Your task to perform on an android device: Search for Mexican restaurants on Maps Image 0: 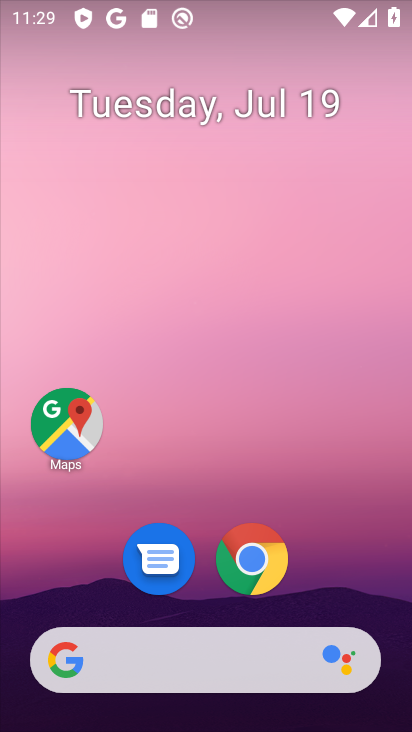
Step 0: click (12, 416)
Your task to perform on an android device: Search for Mexican restaurants on Maps Image 1: 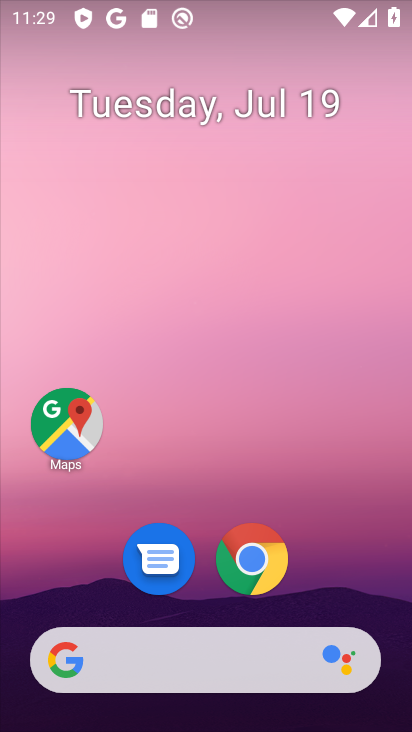
Step 1: click (47, 423)
Your task to perform on an android device: Search for Mexican restaurants on Maps Image 2: 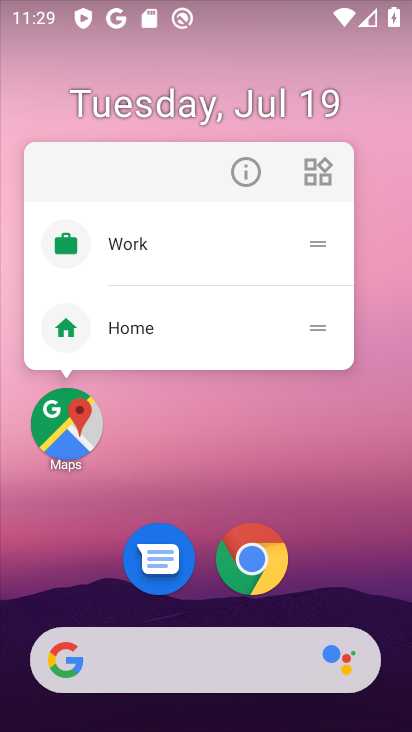
Step 2: click (64, 429)
Your task to perform on an android device: Search for Mexican restaurants on Maps Image 3: 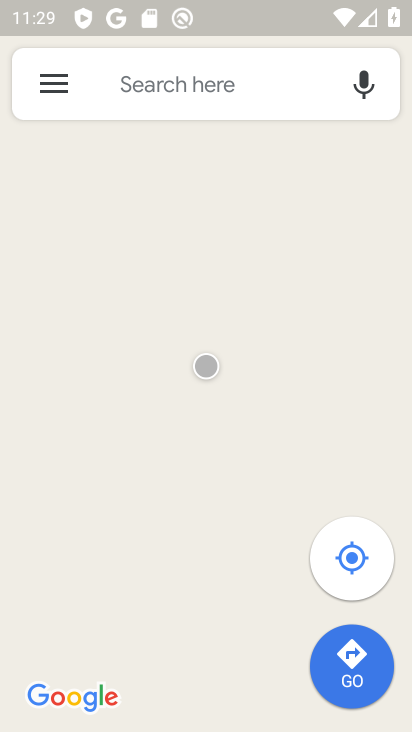
Step 3: click (165, 81)
Your task to perform on an android device: Search for Mexican restaurants on Maps Image 4: 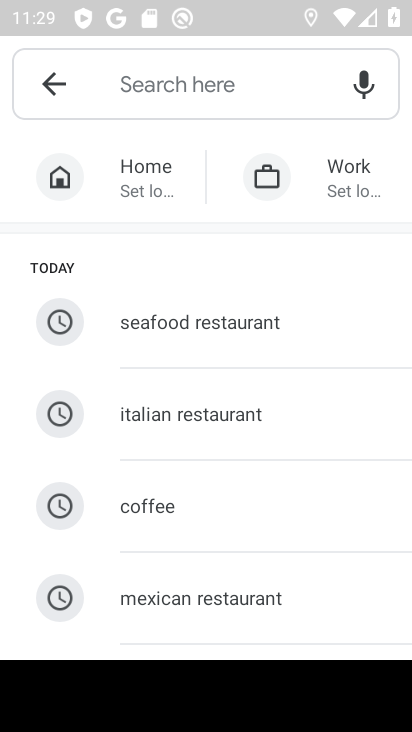
Step 4: type "mexican r"
Your task to perform on an android device: Search for Mexican restaurants on Maps Image 5: 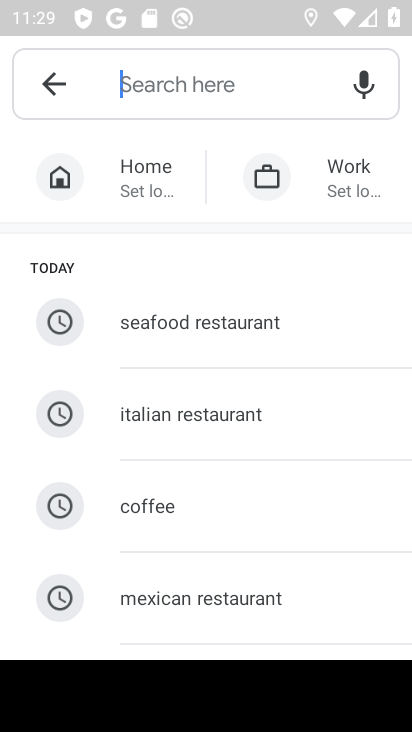
Step 5: click (225, 587)
Your task to perform on an android device: Search for Mexican restaurants on Maps Image 6: 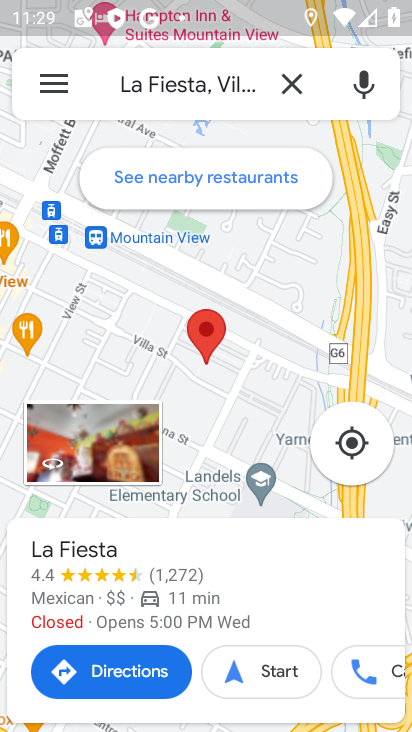
Step 6: click (301, 80)
Your task to perform on an android device: Search for Mexican restaurants on Maps Image 7: 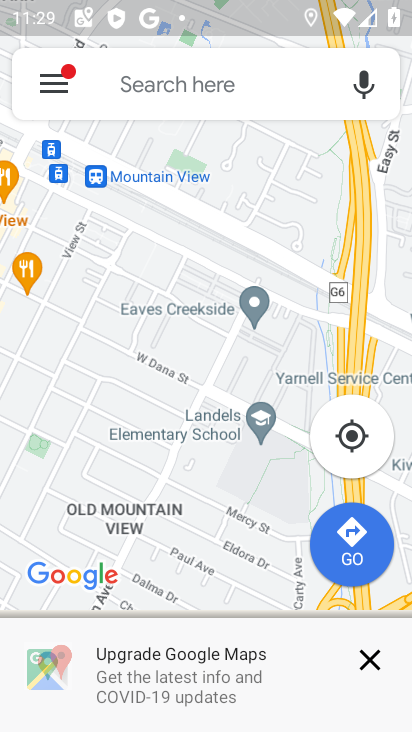
Step 7: click (170, 90)
Your task to perform on an android device: Search for Mexican restaurants on Maps Image 8: 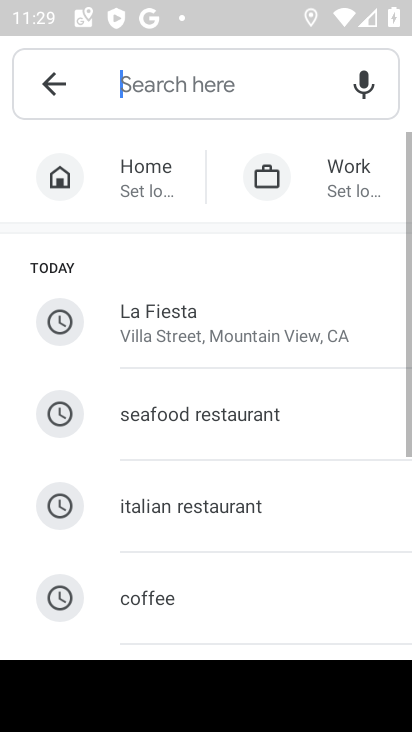
Step 8: drag from (168, 558) to (264, 198)
Your task to perform on an android device: Search for Mexican restaurants on Maps Image 9: 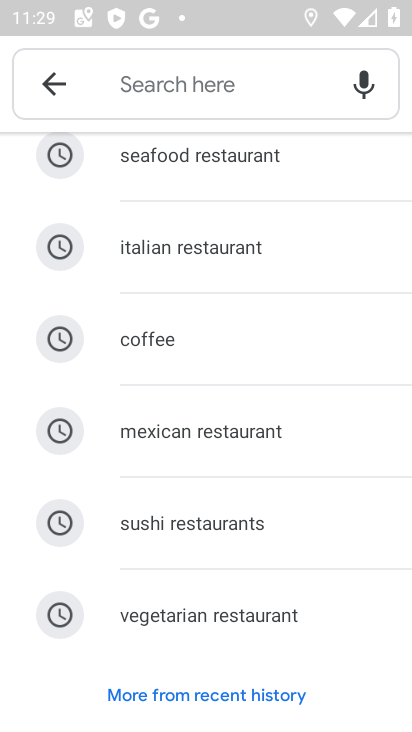
Step 9: click (188, 437)
Your task to perform on an android device: Search for Mexican restaurants on Maps Image 10: 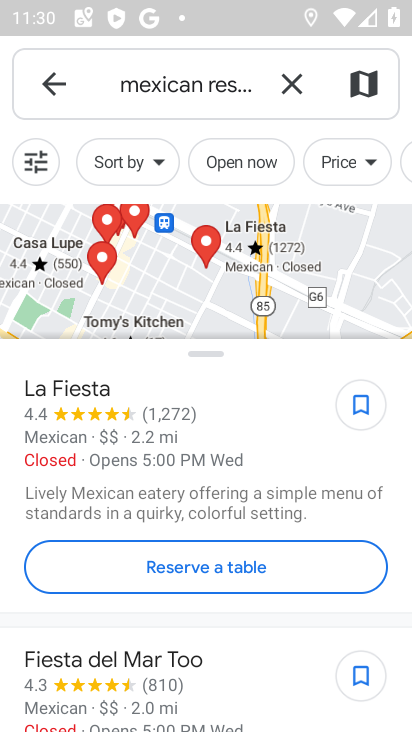
Step 10: task complete